Your task to perform on an android device: What is the speed of light? Image 0: 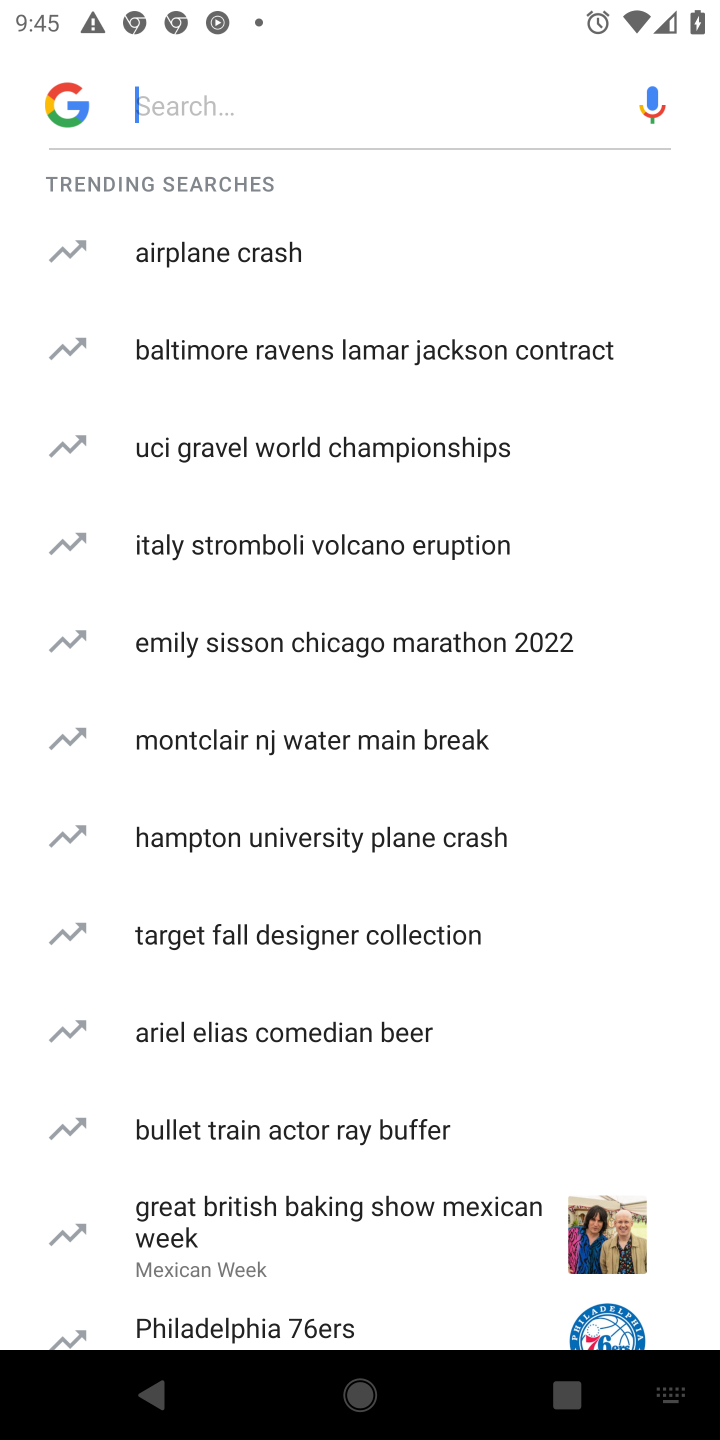
Step 0: click (213, 92)
Your task to perform on an android device: What is the speed of light? Image 1: 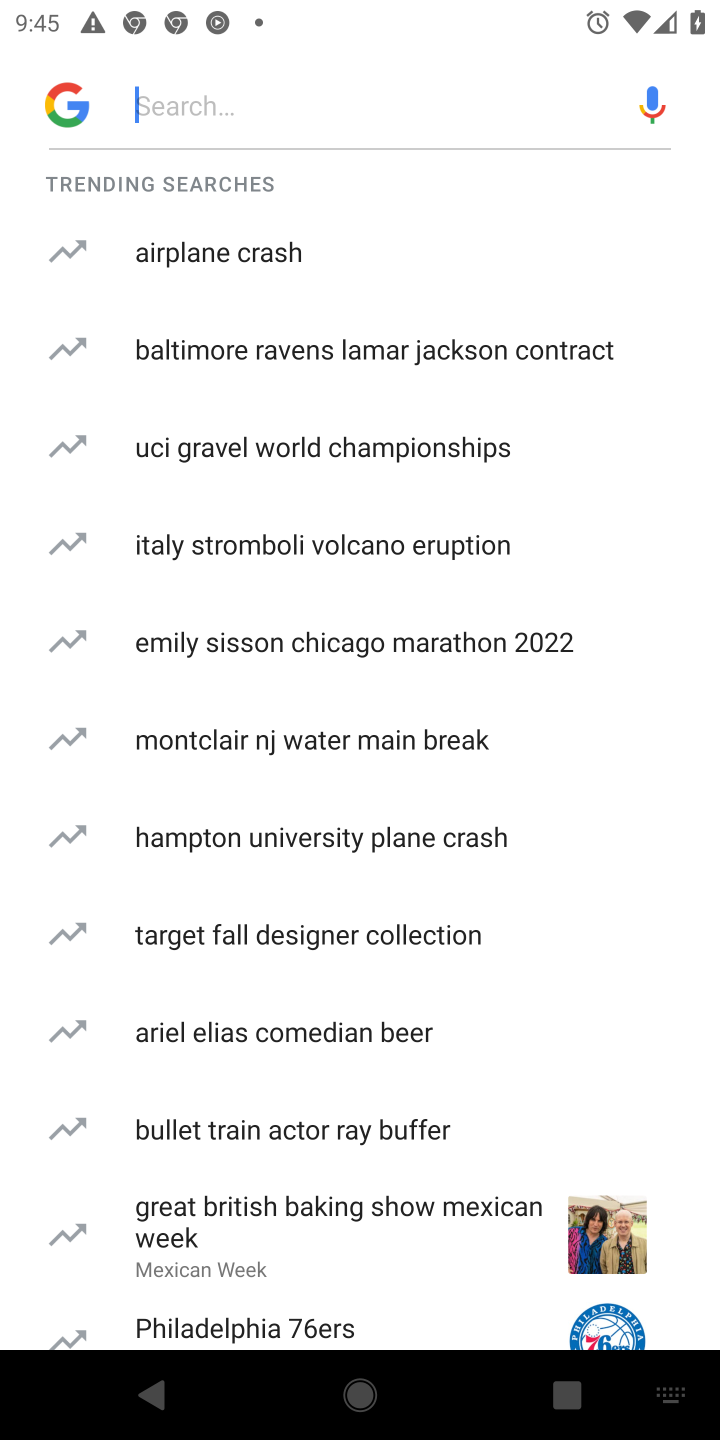
Step 1: type "What is the speed of light? "
Your task to perform on an android device: What is the speed of light? Image 2: 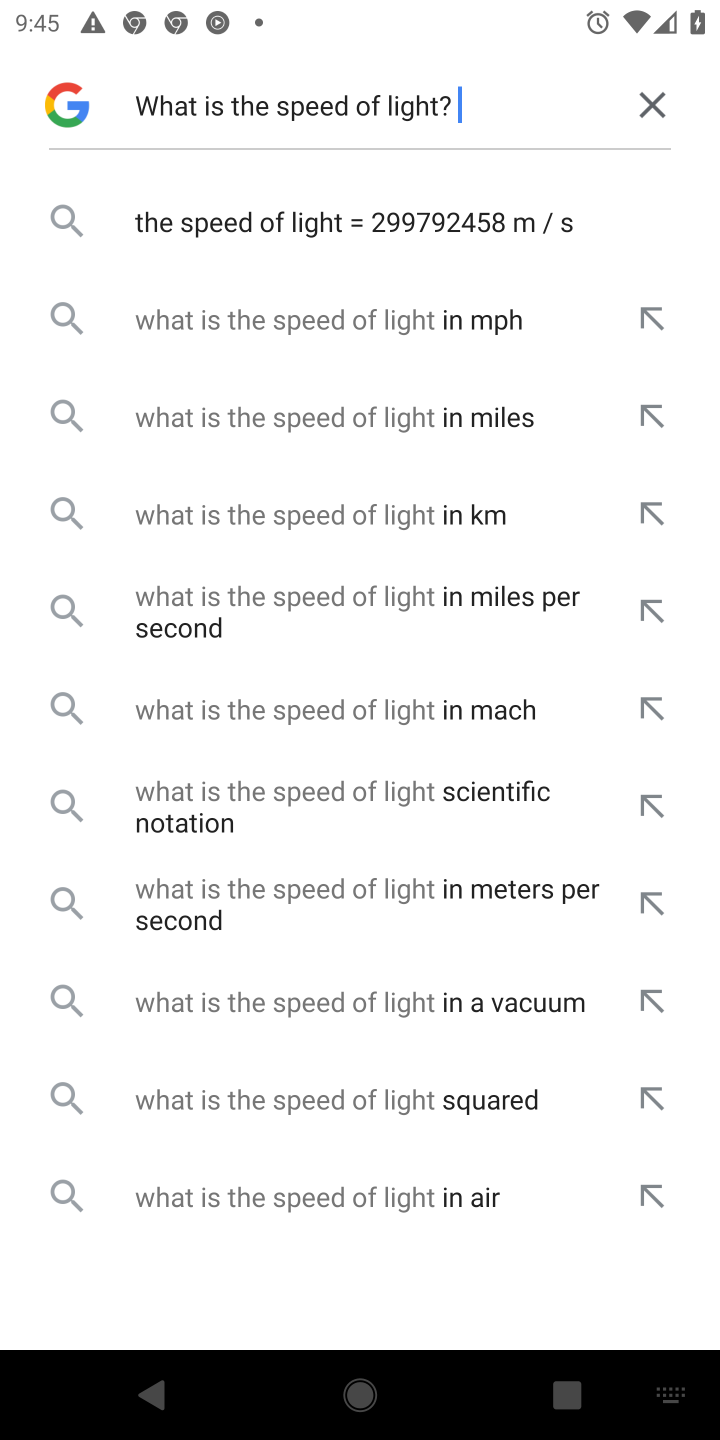
Step 2: click (358, 229)
Your task to perform on an android device: What is the speed of light? Image 3: 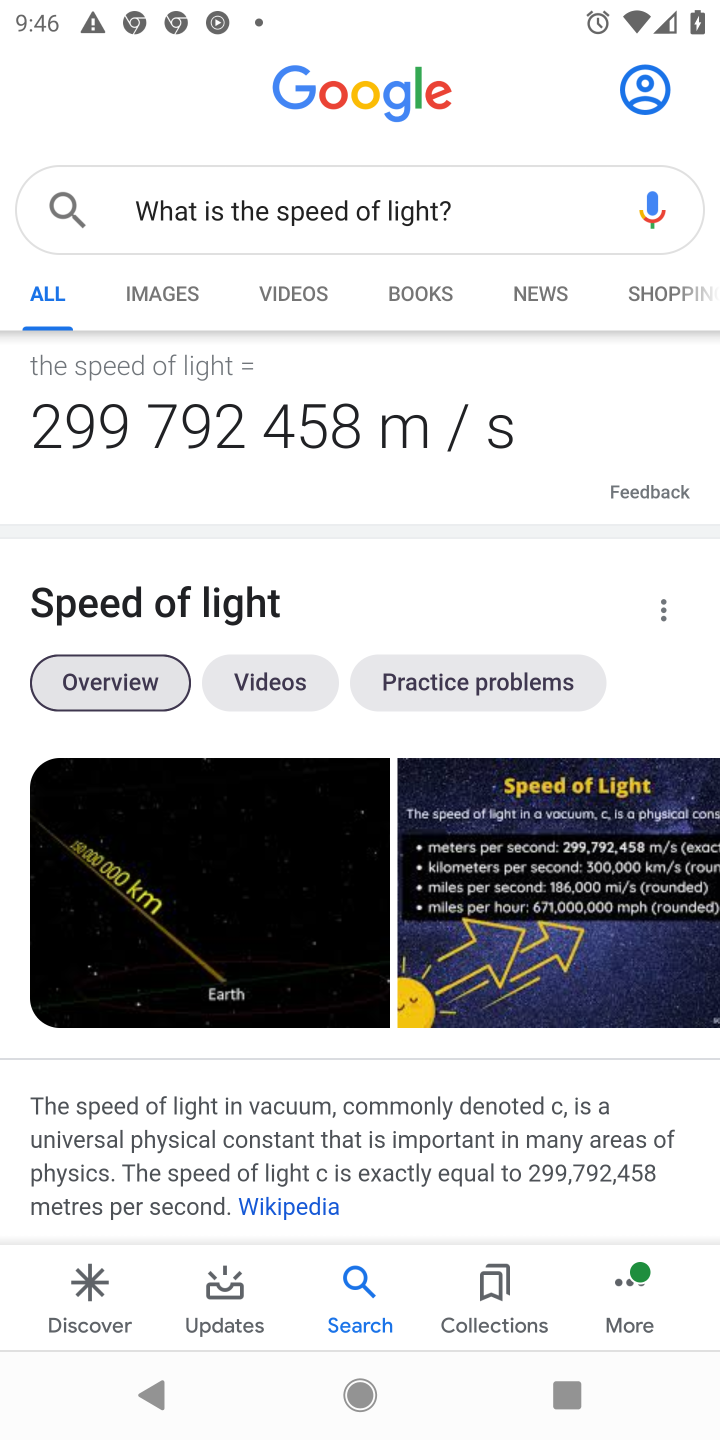
Step 3: task complete